Your task to perform on an android device: Clear the cart on bestbuy.com. Add sony triple a to the cart on bestbuy.com Image 0: 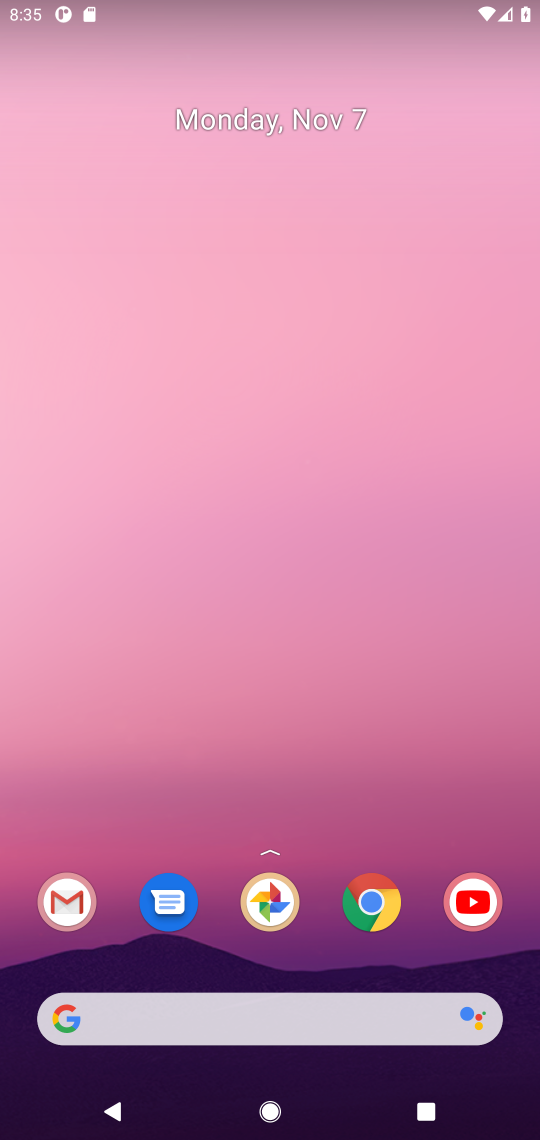
Step 0: click (367, 917)
Your task to perform on an android device: Clear the cart on bestbuy.com. Add sony triple a to the cart on bestbuy.com Image 1: 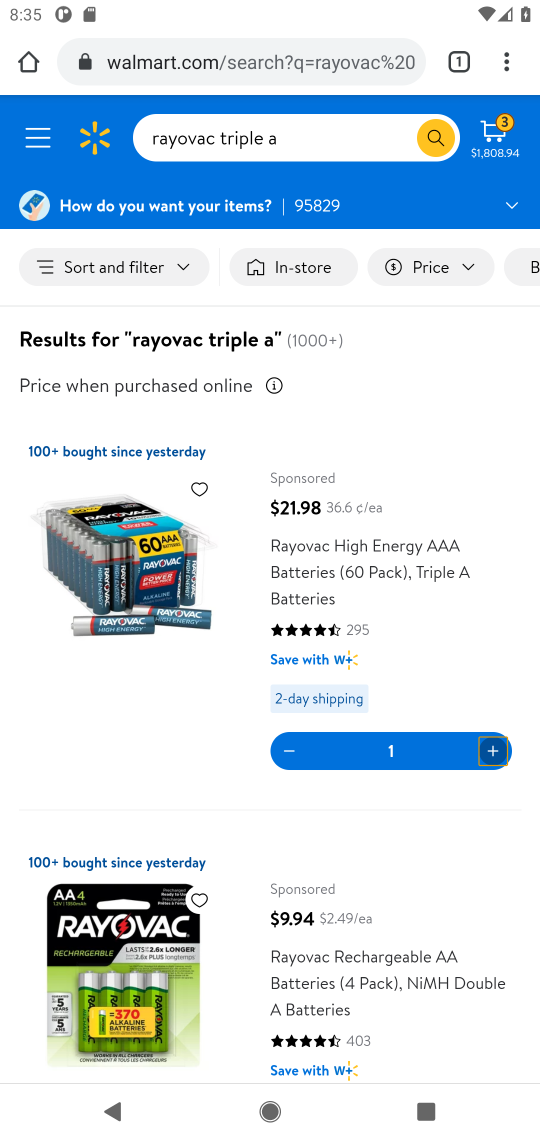
Step 1: click (257, 66)
Your task to perform on an android device: Clear the cart on bestbuy.com. Add sony triple a to the cart on bestbuy.com Image 2: 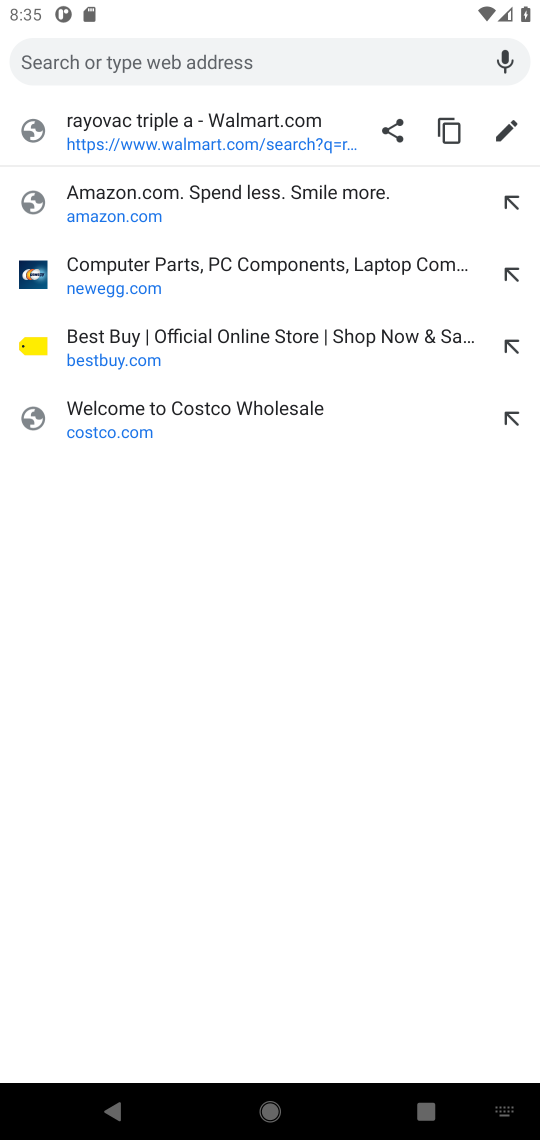
Step 2: click (74, 353)
Your task to perform on an android device: Clear the cart on bestbuy.com. Add sony triple a to the cart on bestbuy.com Image 3: 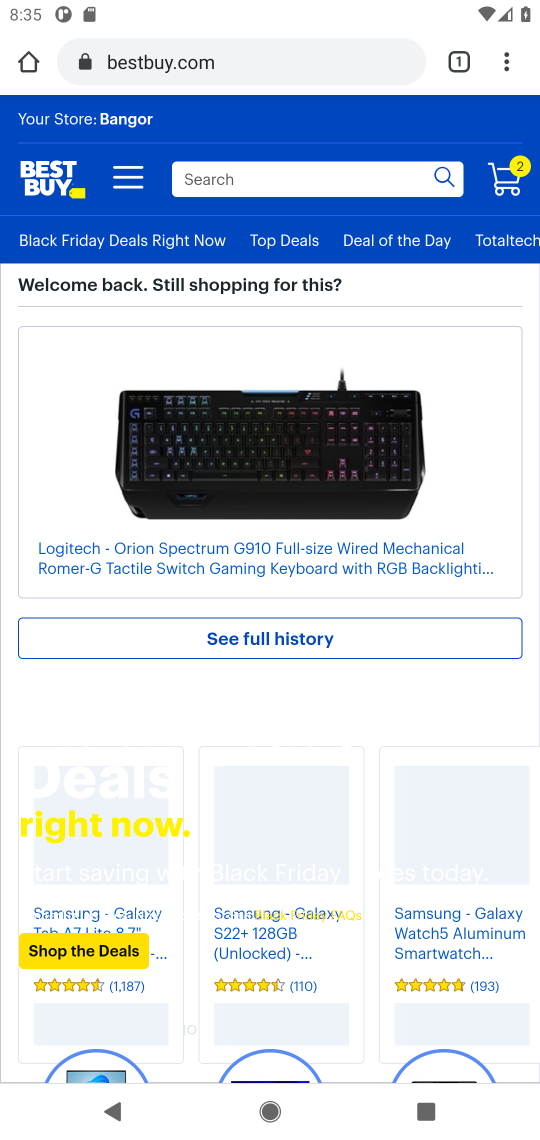
Step 3: click (505, 178)
Your task to perform on an android device: Clear the cart on bestbuy.com. Add sony triple a to the cart on bestbuy.com Image 4: 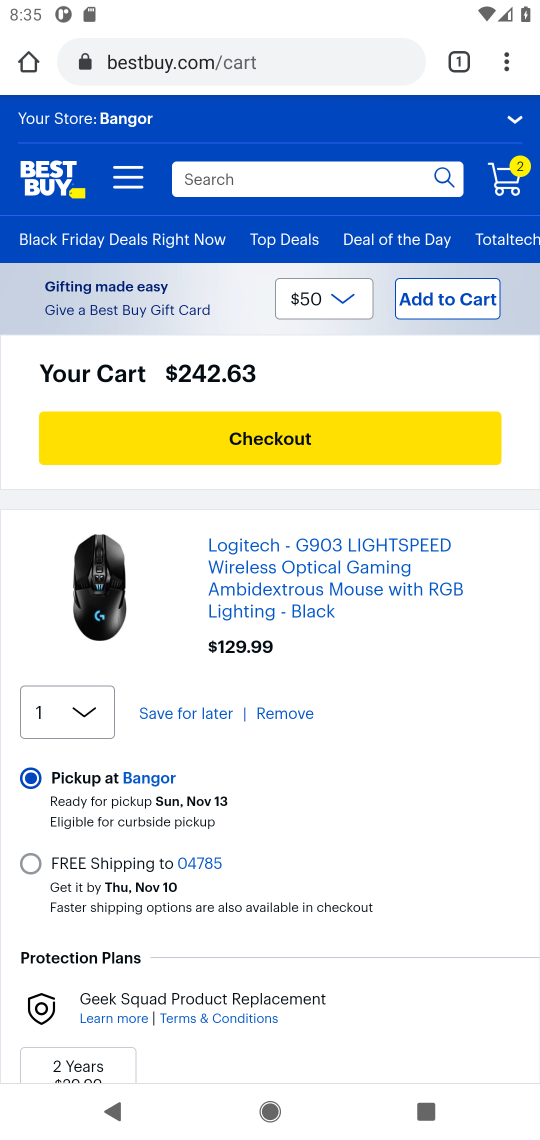
Step 4: click (283, 710)
Your task to perform on an android device: Clear the cart on bestbuy.com. Add sony triple a to the cart on bestbuy.com Image 5: 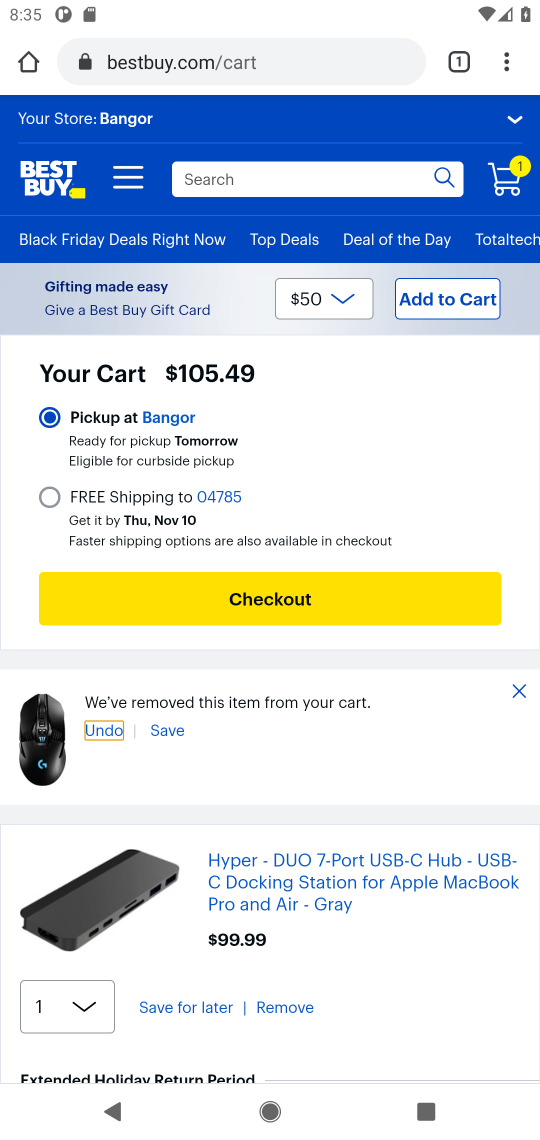
Step 5: click (275, 1006)
Your task to perform on an android device: Clear the cart on bestbuy.com. Add sony triple a to the cart on bestbuy.com Image 6: 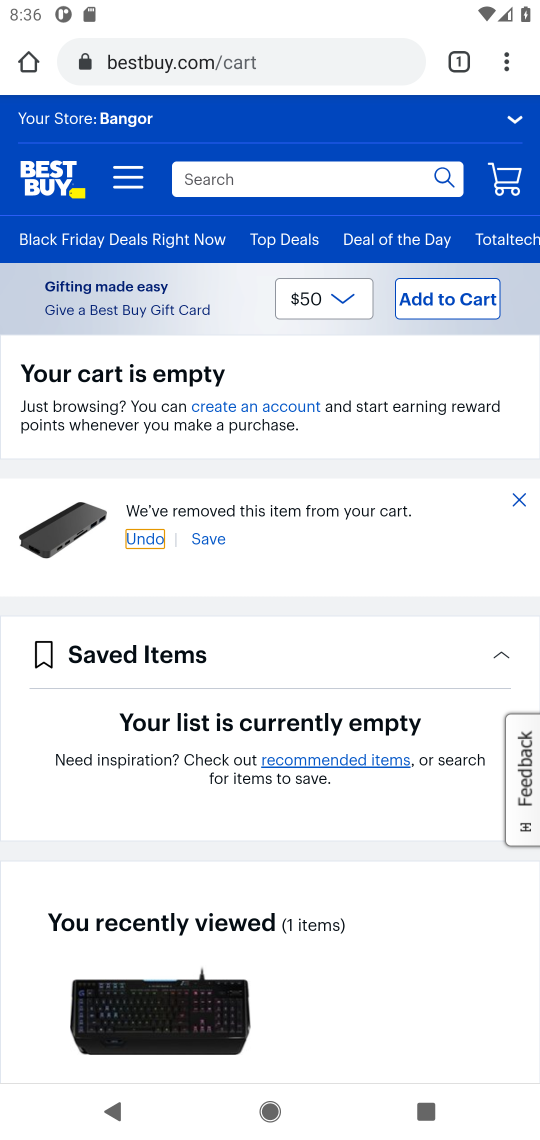
Step 6: click (259, 184)
Your task to perform on an android device: Clear the cart on bestbuy.com. Add sony triple a to the cart on bestbuy.com Image 7: 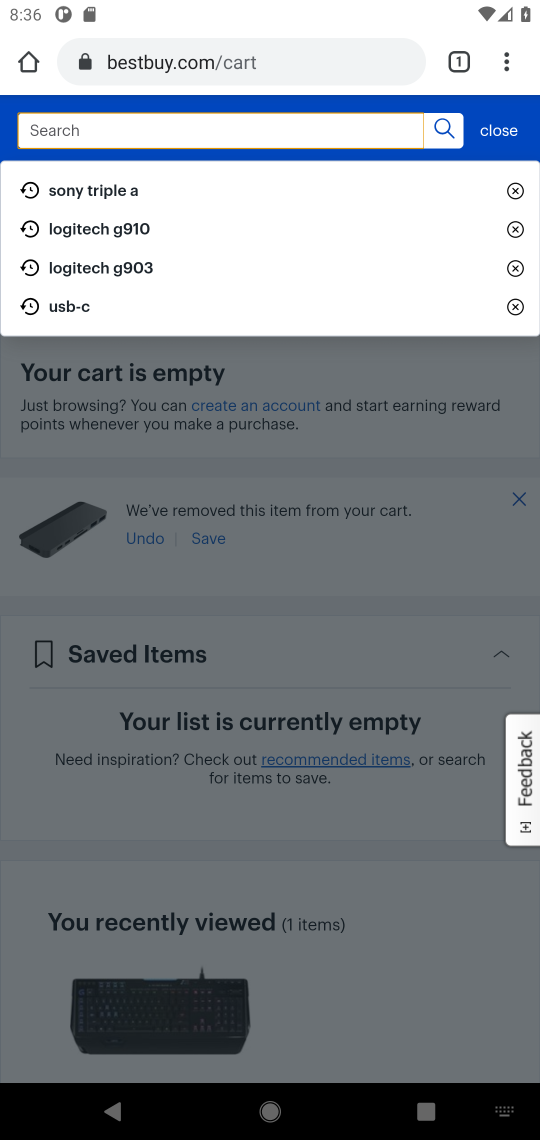
Step 7: type "sony triple a"
Your task to perform on an android device: Clear the cart on bestbuy.com. Add sony triple a to the cart on bestbuy.com Image 8: 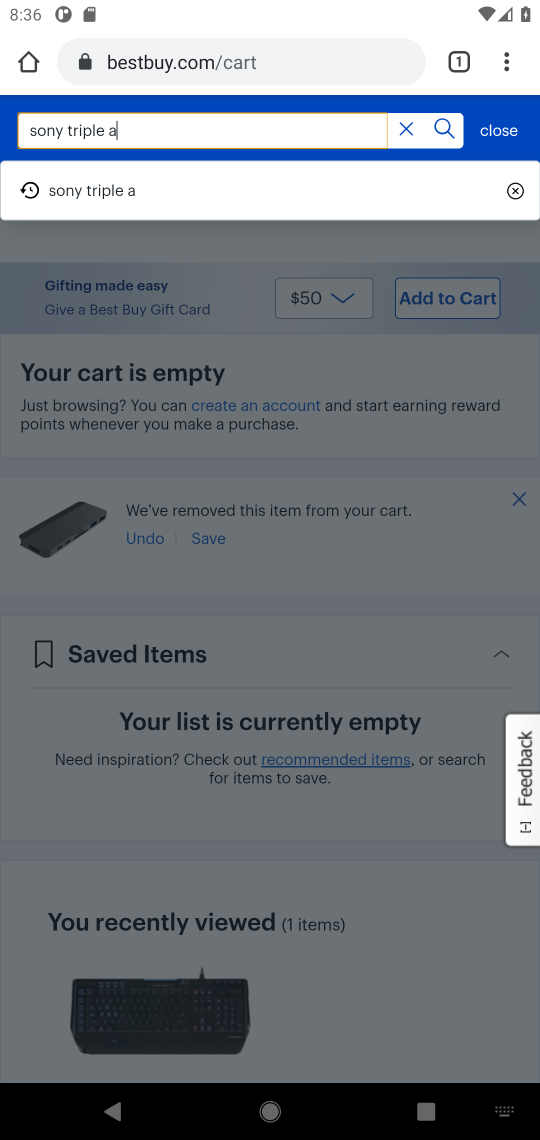
Step 8: click (99, 196)
Your task to perform on an android device: Clear the cart on bestbuy.com. Add sony triple a to the cart on bestbuy.com Image 9: 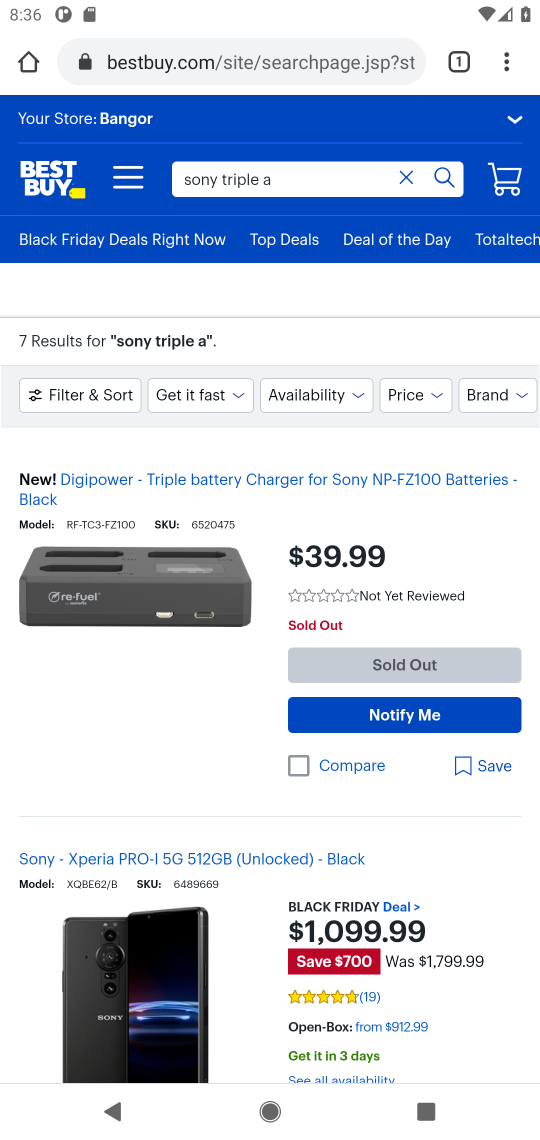
Step 9: task complete